Your task to perform on an android device: Go to eBay Image 0: 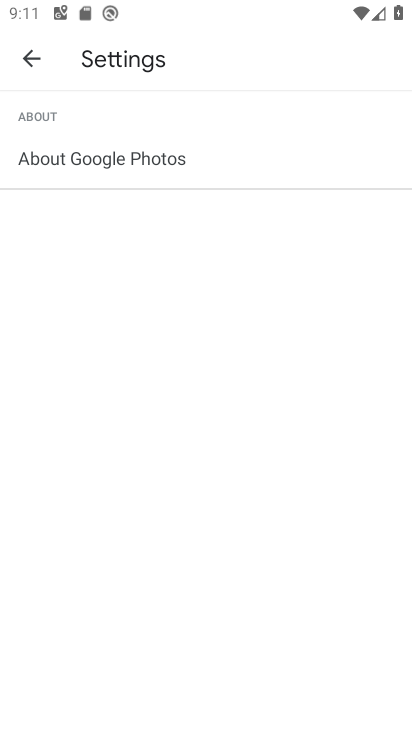
Step 0: press home button
Your task to perform on an android device: Go to eBay Image 1: 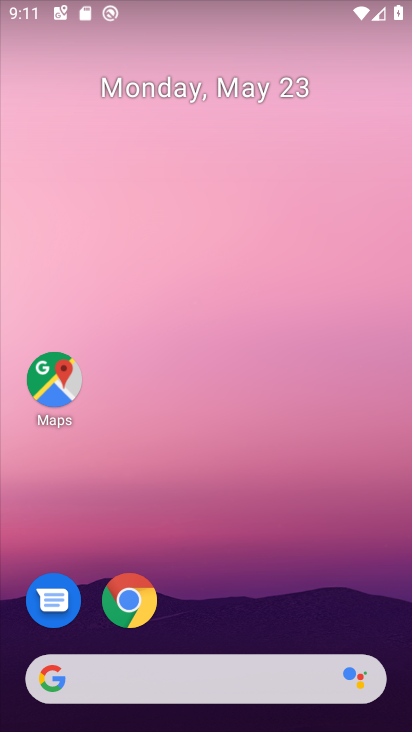
Step 1: click (122, 603)
Your task to perform on an android device: Go to eBay Image 2: 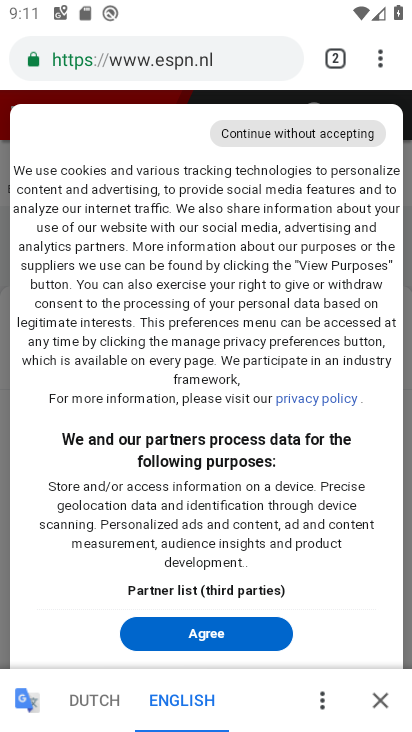
Step 2: click (380, 67)
Your task to perform on an android device: Go to eBay Image 3: 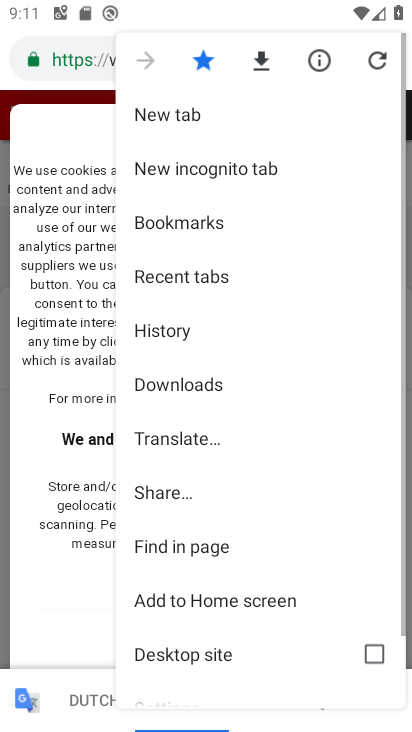
Step 3: click (165, 112)
Your task to perform on an android device: Go to eBay Image 4: 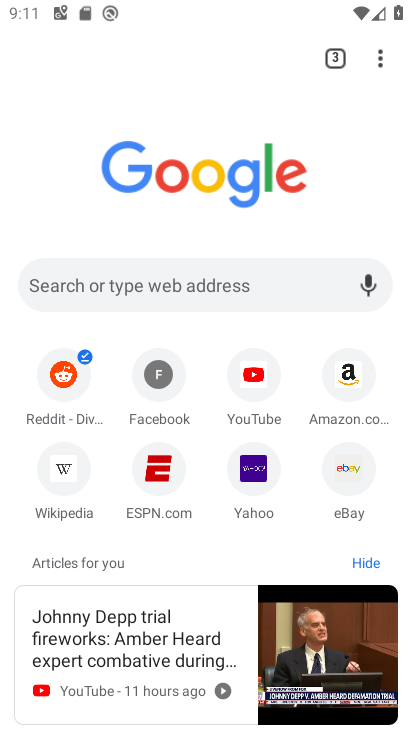
Step 4: click (348, 477)
Your task to perform on an android device: Go to eBay Image 5: 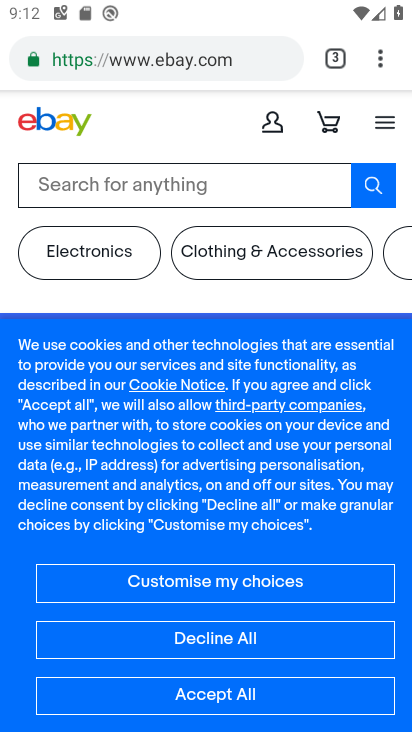
Step 5: task complete